Your task to perform on an android device: delete the emails in spam in the gmail app Image 0: 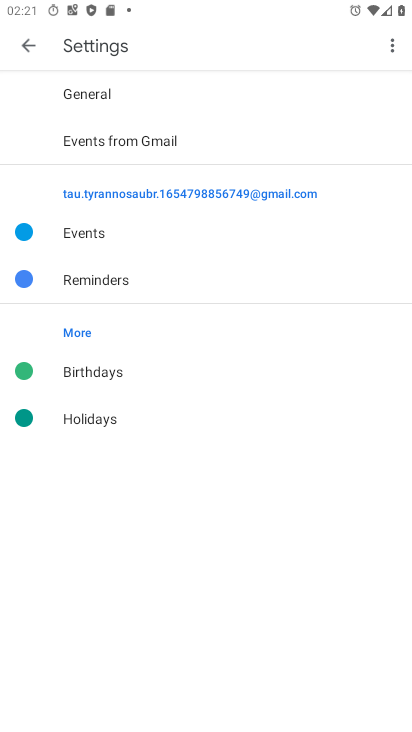
Step 0: press home button
Your task to perform on an android device: delete the emails in spam in the gmail app Image 1: 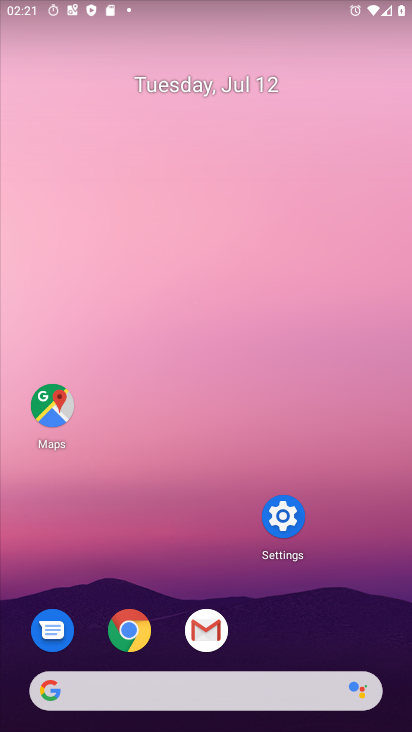
Step 1: click (212, 635)
Your task to perform on an android device: delete the emails in spam in the gmail app Image 2: 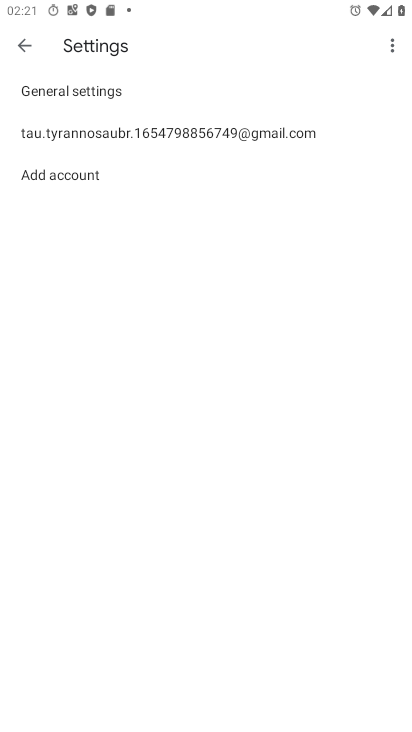
Step 2: click (18, 44)
Your task to perform on an android device: delete the emails in spam in the gmail app Image 3: 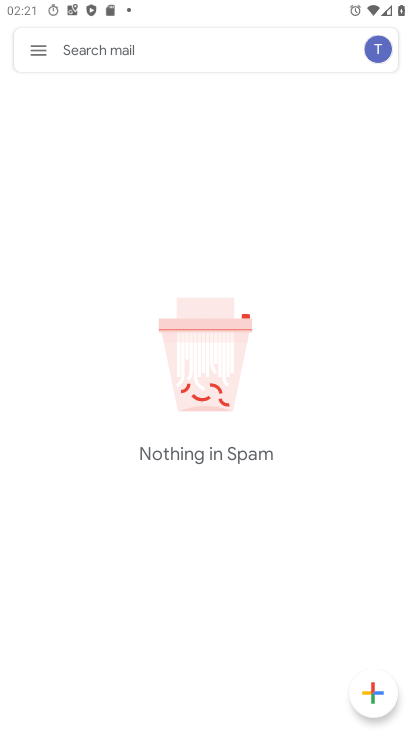
Step 3: click (18, 44)
Your task to perform on an android device: delete the emails in spam in the gmail app Image 4: 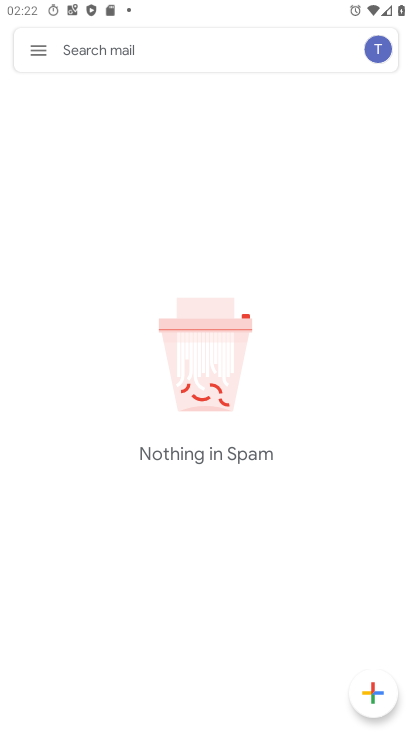
Step 4: click (43, 48)
Your task to perform on an android device: delete the emails in spam in the gmail app Image 5: 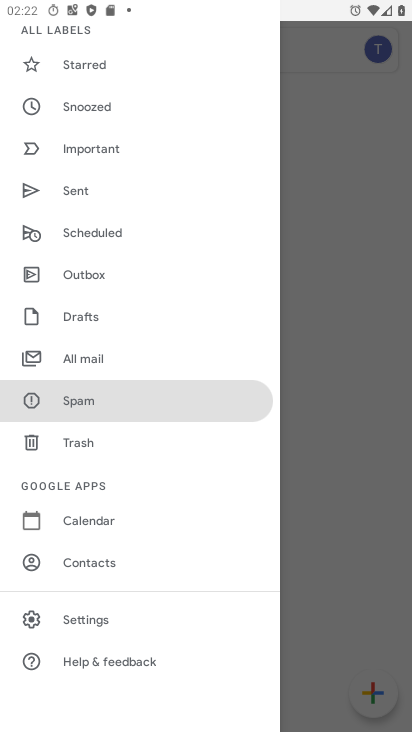
Step 5: click (92, 395)
Your task to perform on an android device: delete the emails in spam in the gmail app Image 6: 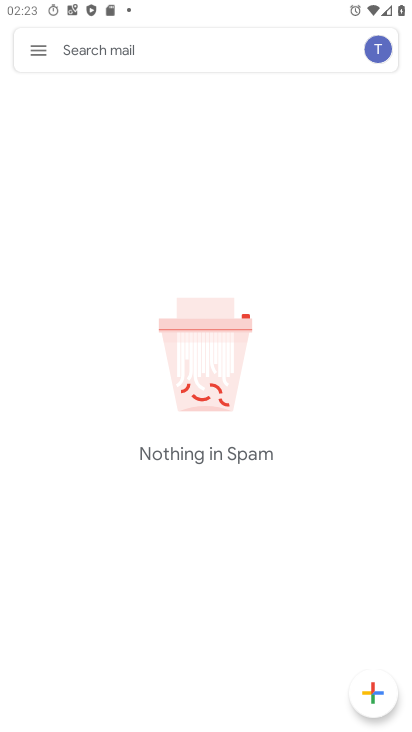
Step 6: task complete